Your task to perform on an android device: Go to wifi settings Image 0: 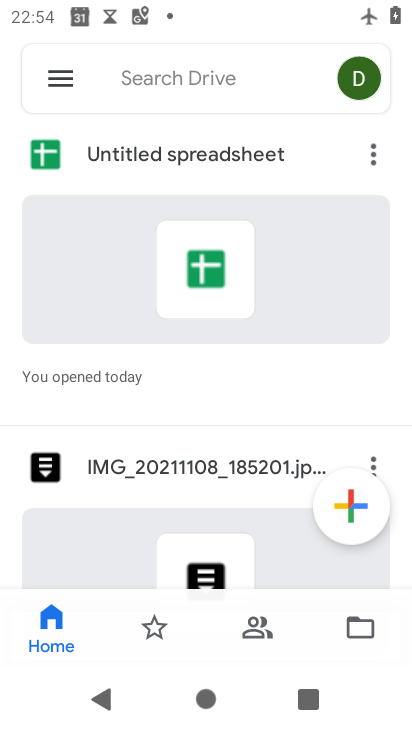
Step 0: press home button
Your task to perform on an android device: Go to wifi settings Image 1: 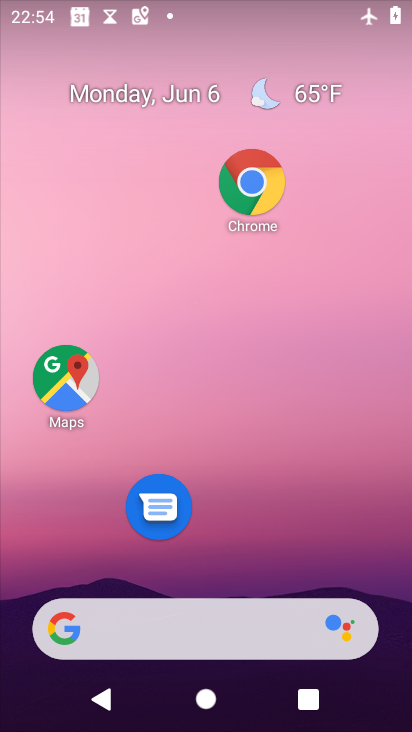
Step 1: drag from (212, 555) to (285, 236)
Your task to perform on an android device: Go to wifi settings Image 2: 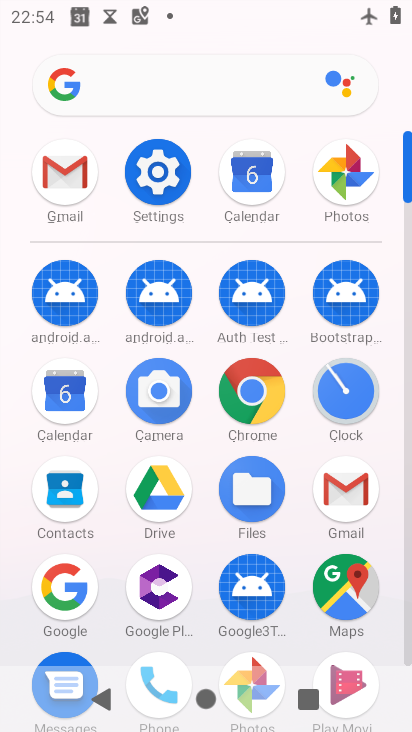
Step 2: click (170, 158)
Your task to perform on an android device: Go to wifi settings Image 3: 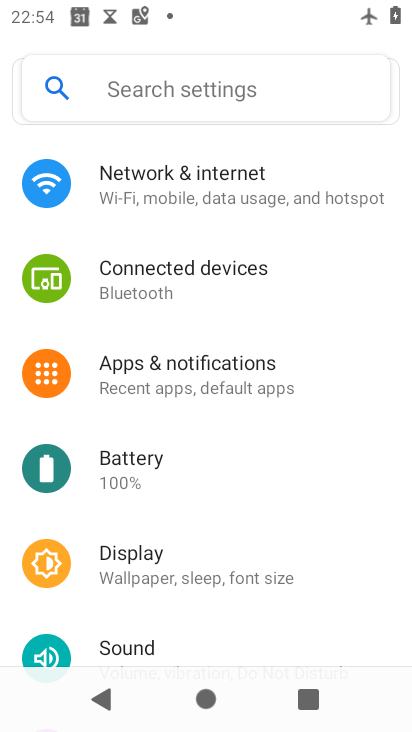
Step 3: click (140, 171)
Your task to perform on an android device: Go to wifi settings Image 4: 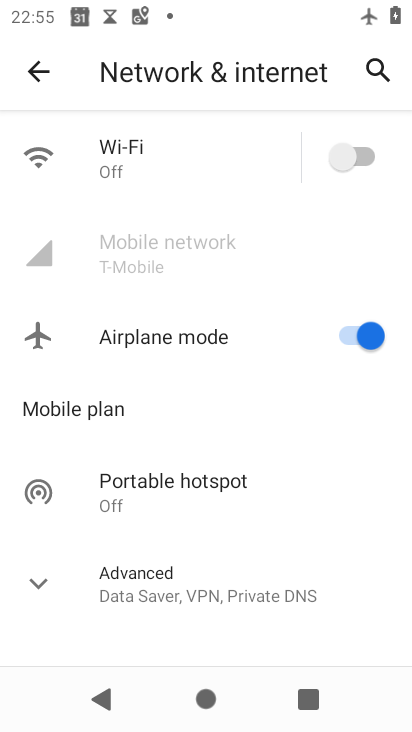
Step 4: task complete